Your task to perform on an android device: open sync settings in chrome Image 0: 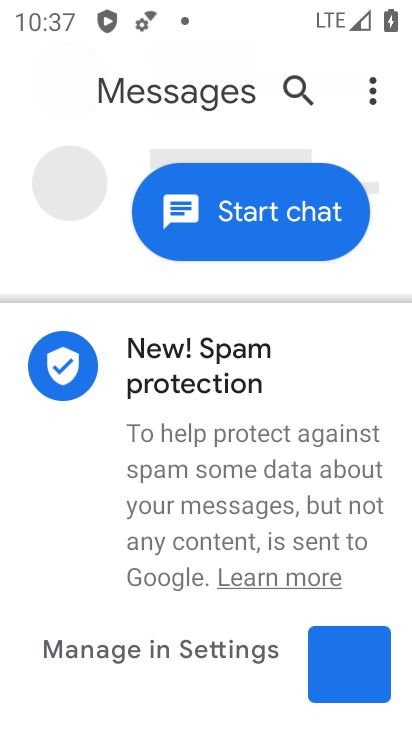
Step 0: press home button
Your task to perform on an android device: open sync settings in chrome Image 1: 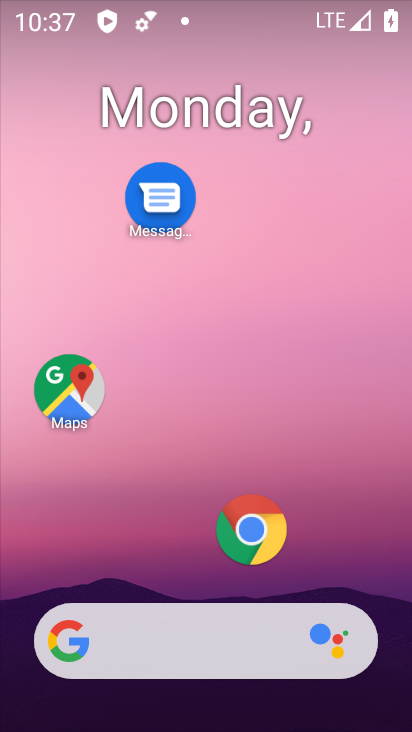
Step 1: drag from (225, 392) to (283, 85)
Your task to perform on an android device: open sync settings in chrome Image 2: 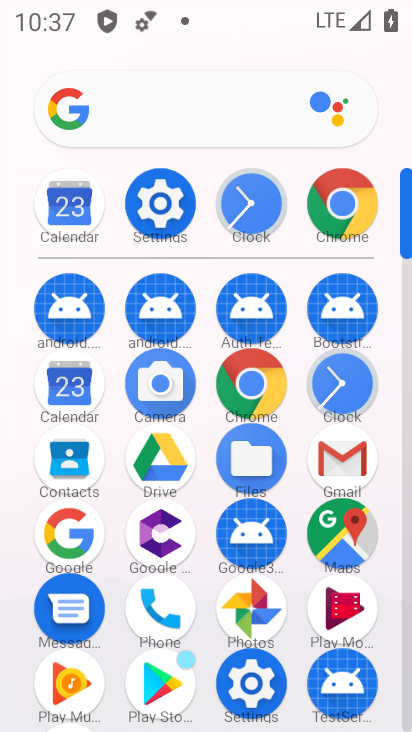
Step 2: click (256, 393)
Your task to perform on an android device: open sync settings in chrome Image 3: 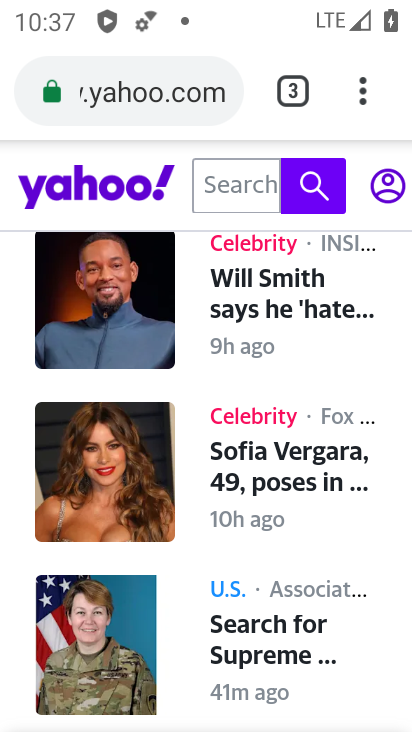
Step 3: click (362, 93)
Your task to perform on an android device: open sync settings in chrome Image 4: 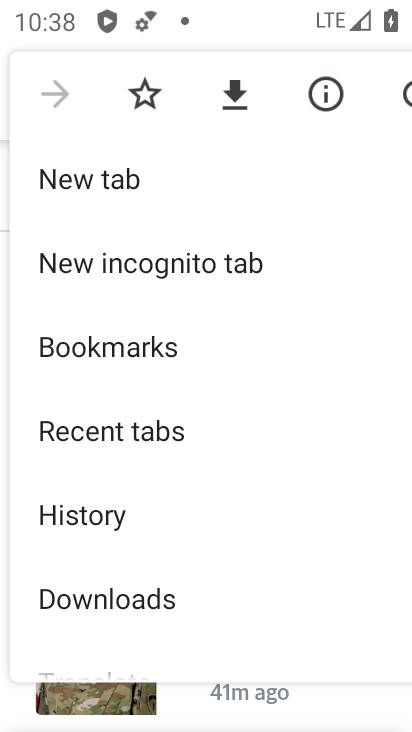
Step 4: drag from (158, 526) to (214, 191)
Your task to perform on an android device: open sync settings in chrome Image 5: 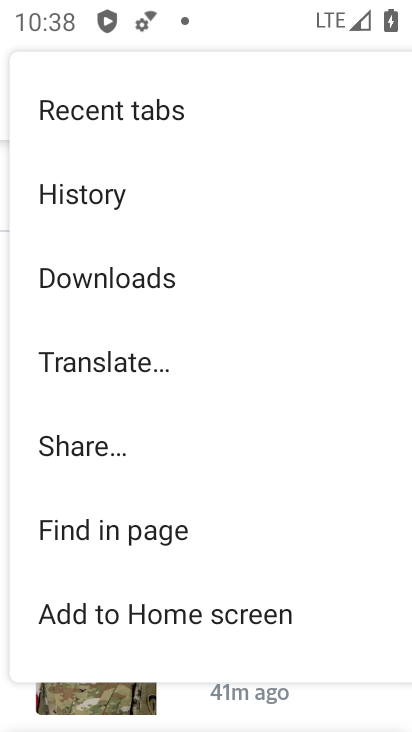
Step 5: drag from (167, 468) to (232, 179)
Your task to perform on an android device: open sync settings in chrome Image 6: 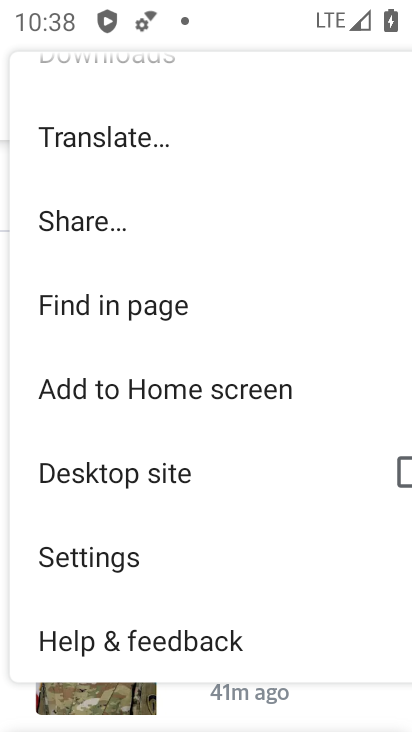
Step 6: click (144, 562)
Your task to perform on an android device: open sync settings in chrome Image 7: 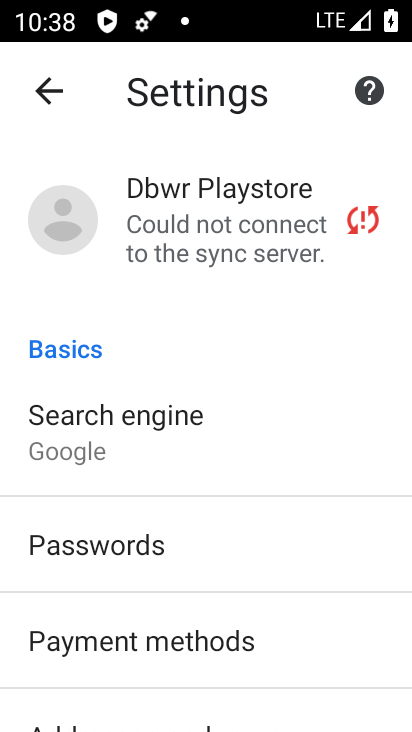
Step 7: click (206, 269)
Your task to perform on an android device: open sync settings in chrome Image 8: 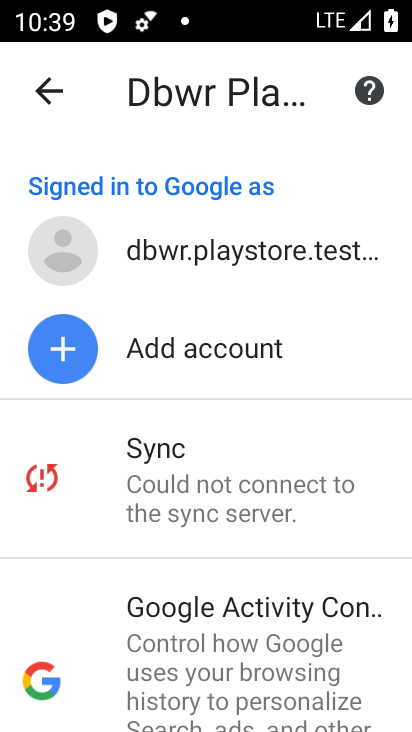
Step 8: click (263, 489)
Your task to perform on an android device: open sync settings in chrome Image 9: 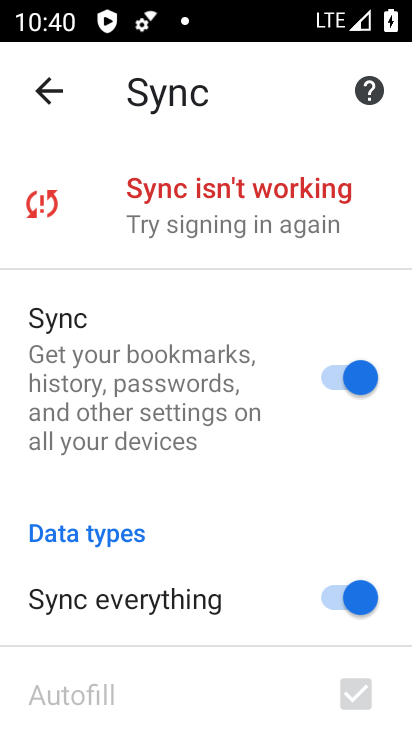
Step 9: task complete